Your task to perform on an android device: Clear the shopping cart on bestbuy. Image 0: 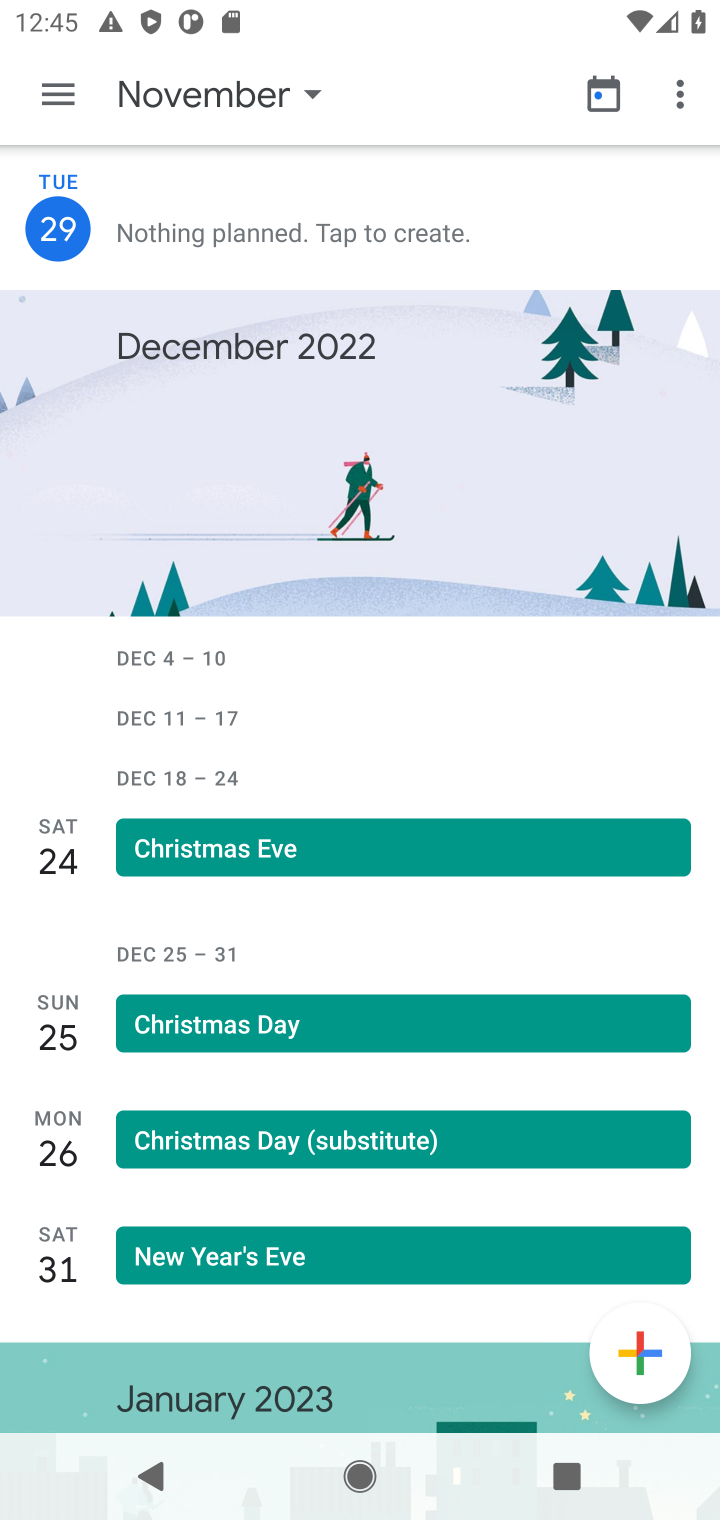
Step 0: task complete